Your task to perform on an android device: check data usage Image 0: 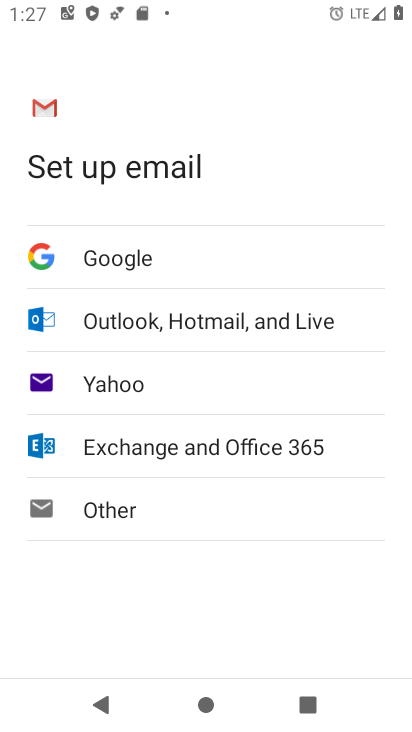
Step 0: press home button
Your task to perform on an android device: check data usage Image 1: 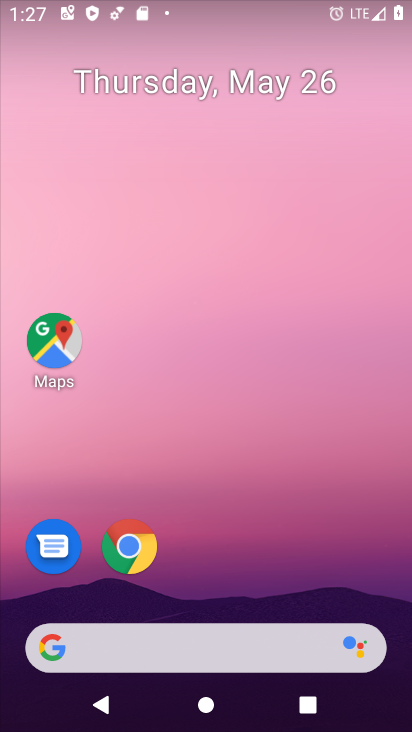
Step 1: drag from (387, 547) to (338, 2)
Your task to perform on an android device: check data usage Image 2: 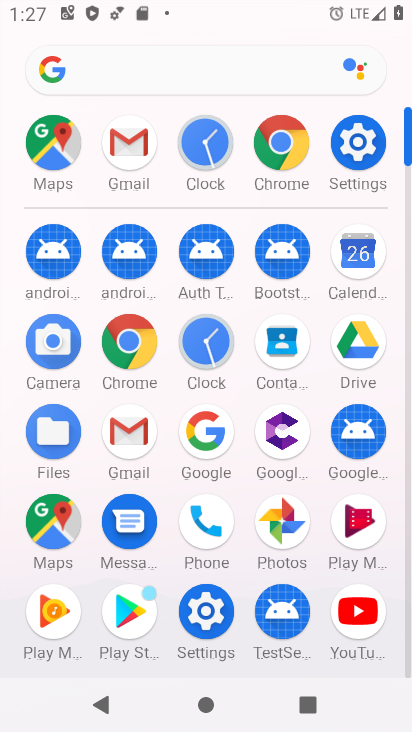
Step 2: click (194, 614)
Your task to perform on an android device: check data usage Image 3: 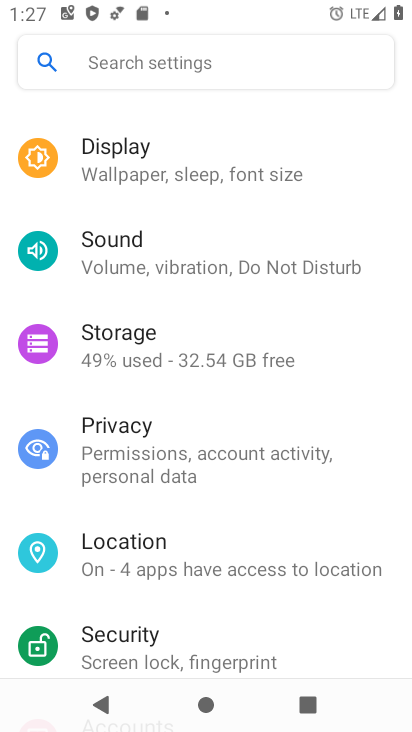
Step 3: drag from (263, 244) to (301, 667)
Your task to perform on an android device: check data usage Image 4: 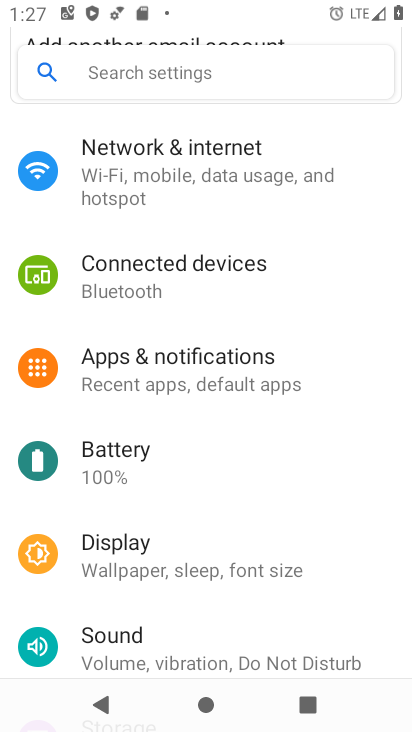
Step 4: drag from (326, 249) to (330, 467)
Your task to perform on an android device: check data usage Image 5: 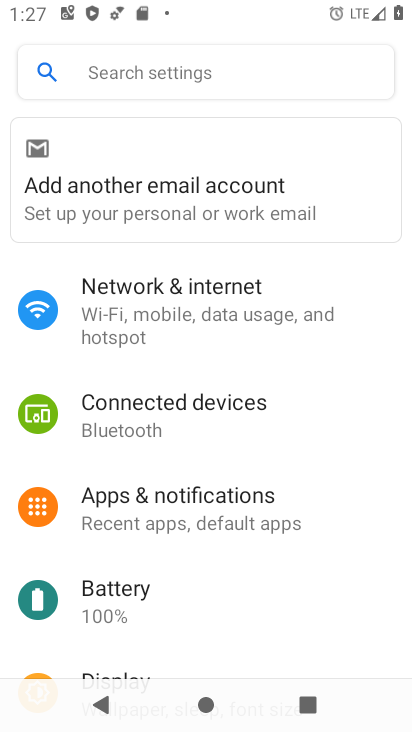
Step 5: click (274, 322)
Your task to perform on an android device: check data usage Image 6: 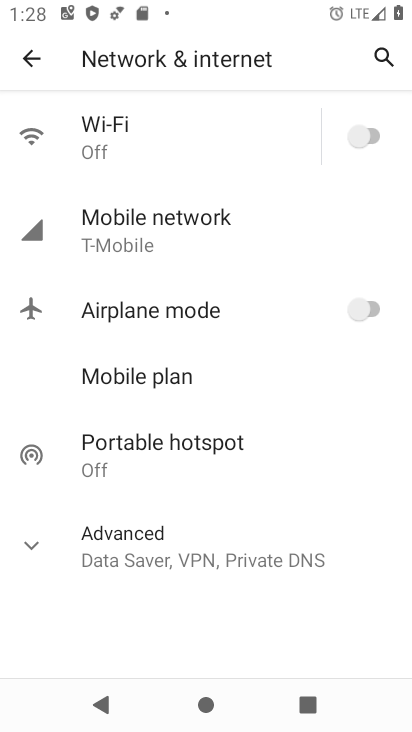
Step 6: click (192, 241)
Your task to perform on an android device: check data usage Image 7: 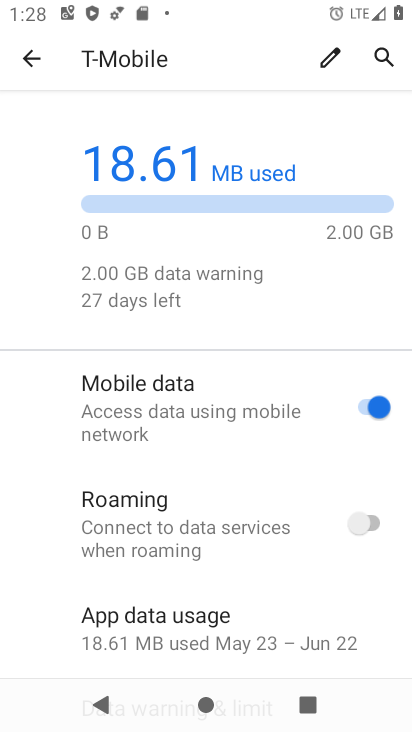
Step 7: click (210, 640)
Your task to perform on an android device: check data usage Image 8: 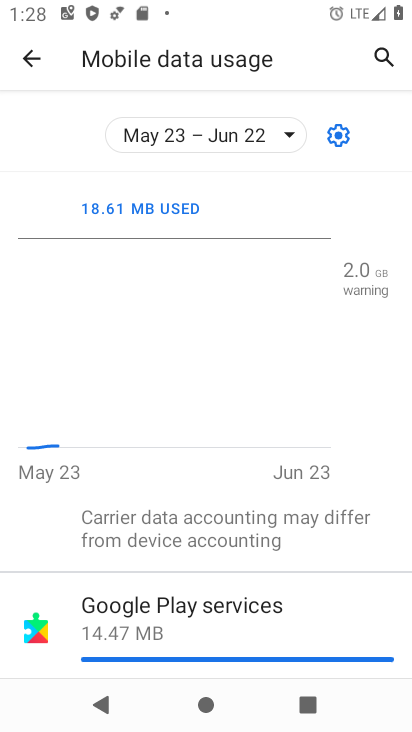
Step 8: task complete